Your task to perform on an android device: Open CNN.com Image 0: 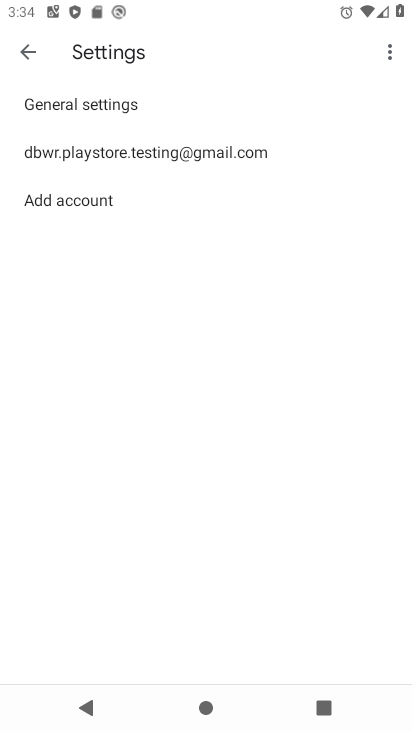
Step 0: press back button
Your task to perform on an android device: Open CNN.com Image 1: 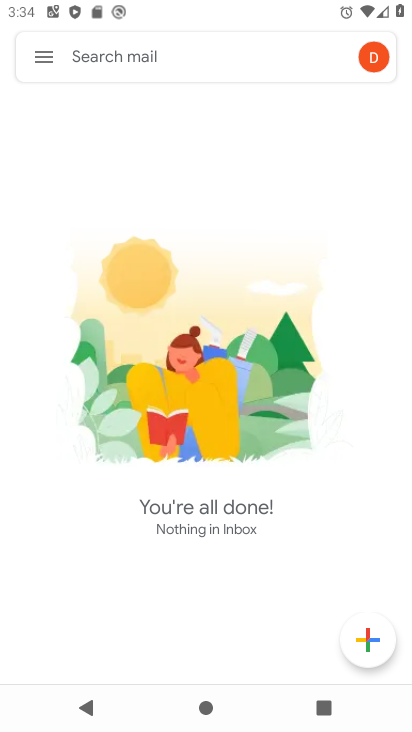
Step 1: press back button
Your task to perform on an android device: Open CNN.com Image 2: 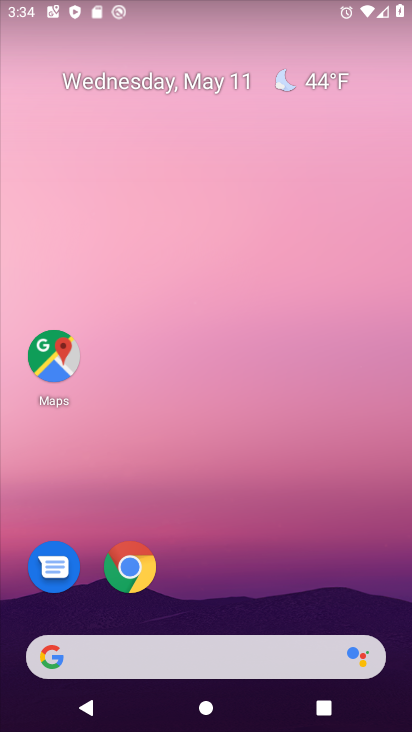
Step 2: press home button
Your task to perform on an android device: Open CNN.com Image 3: 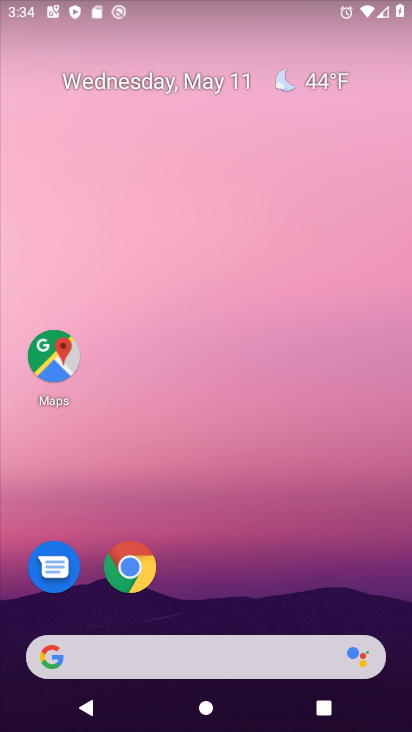
Step 3: click (123, 571)
Your task to perform on an android device: Open CNN.com Image 4: 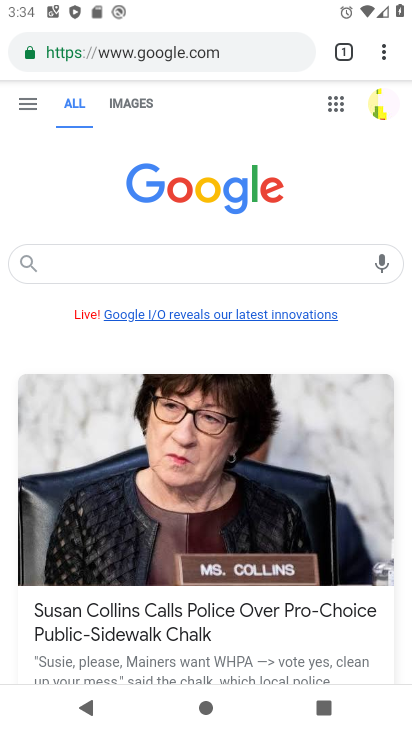
Step 4: click (145, 54)
Your task to perform on an android device: Open CNN.com Image 5: 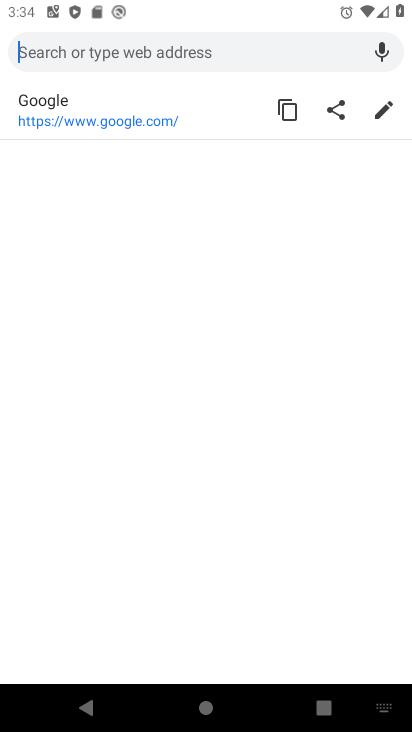
Step 5: type "CNN.com"
Your task to perform on an android device: Open CNN.com Image 6: 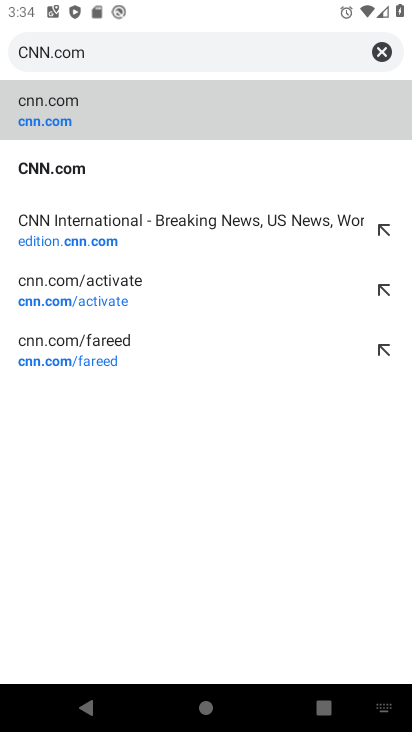
Step 6: click (96, 110)
Your task to perform on an android device: Open CNN.com Image 7: 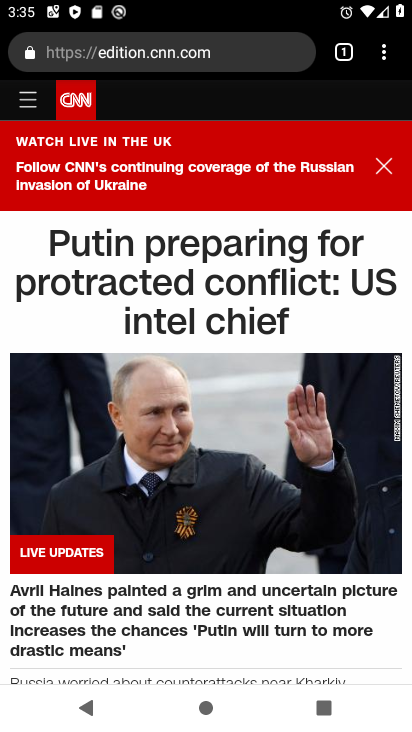
Step 7: task complete